Your task to perform on an android device: search for starred emails in the gmail app Image 0: 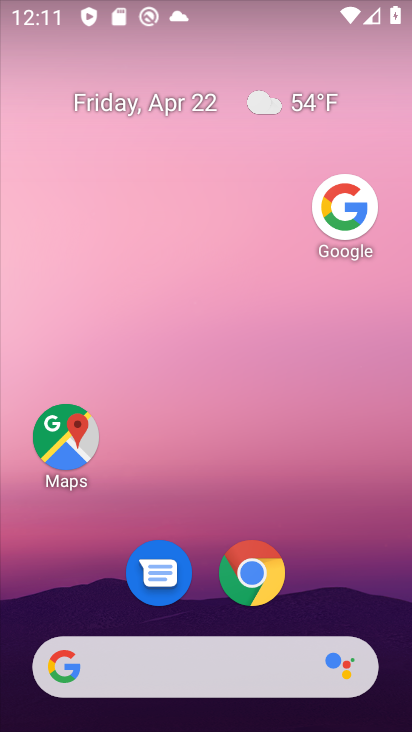
Step 0: drag from (163, 668) to (272, 146)
Your task to perform on an android device: search for starred emails in the gmail app Image 1: 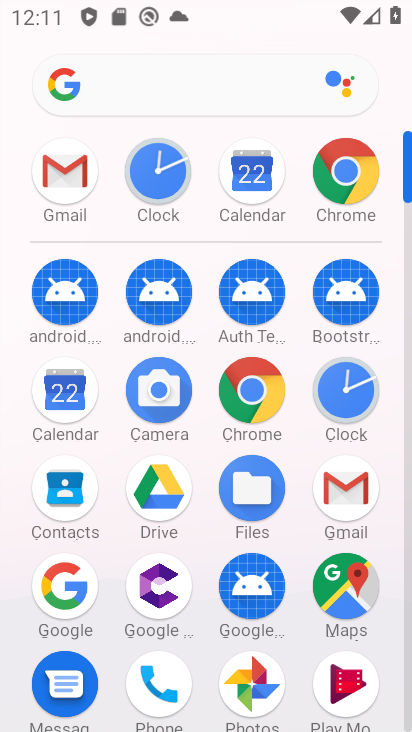
Step 1: click (70, 179)
Your task to perform on an android device: search for starred emails in the gmail app Image 2: 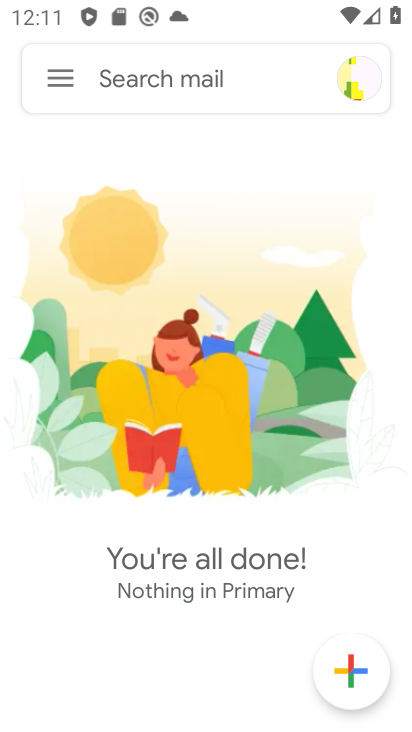
Step 2: click (62, 79)
Your task to perform on an android device: search for starred emails in the gmail app Image 3: 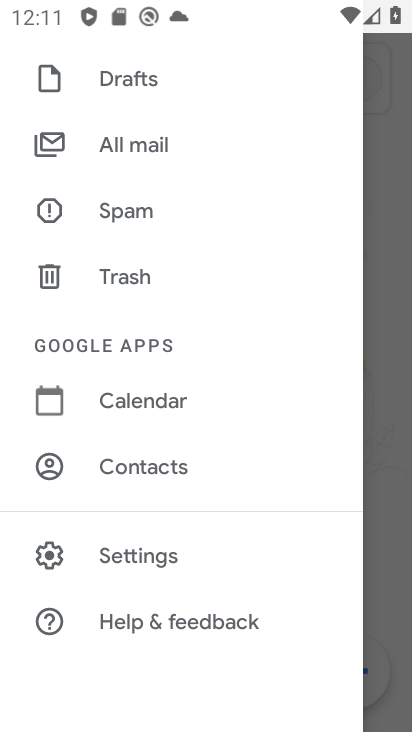
Step 3: drag from (239, 145) to (170, 616)
Your task to perform on an android device: search for starred emails in the gmail app Image 4: 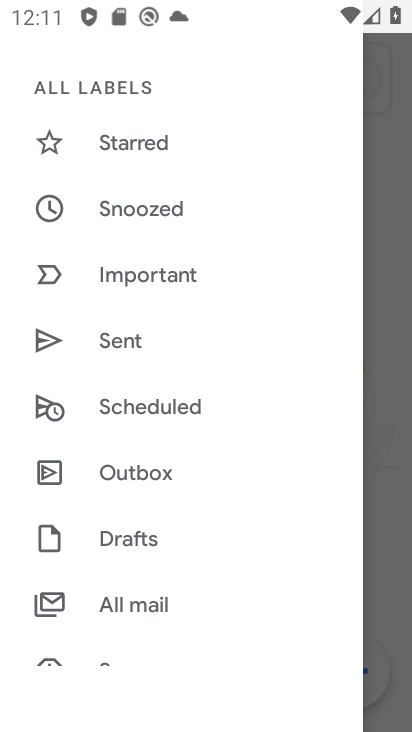
Step 4: click (153, 141)
Your task to perform on an android device: search for starred emails in the gmail app Image 5: 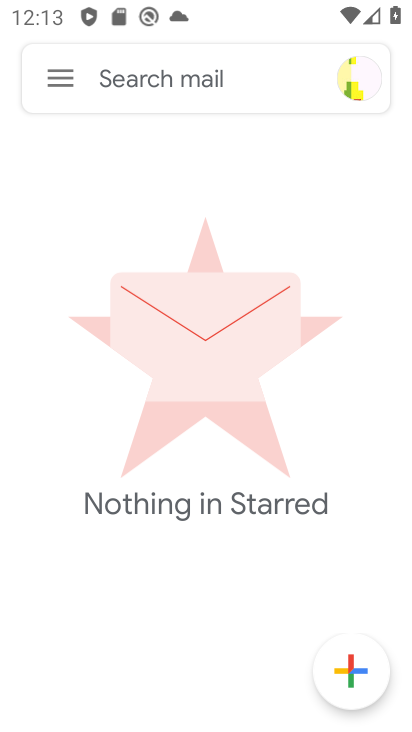
Step 5: task complete